Your task to perform on an android device: Check the news Image 0: 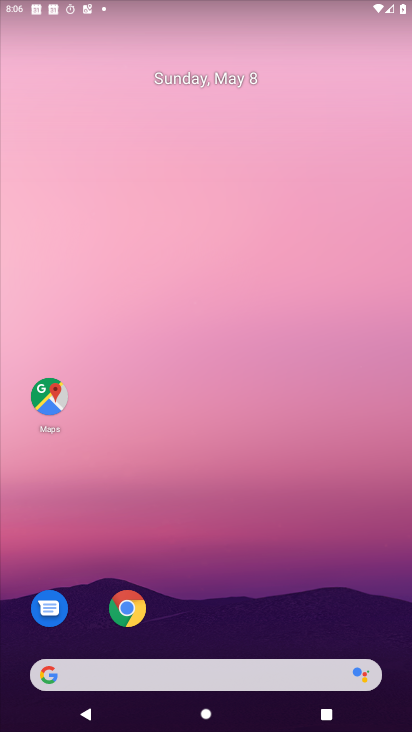
Step 0: click (138, 613)
Your task to perform on an android device: Check the news Image 1: 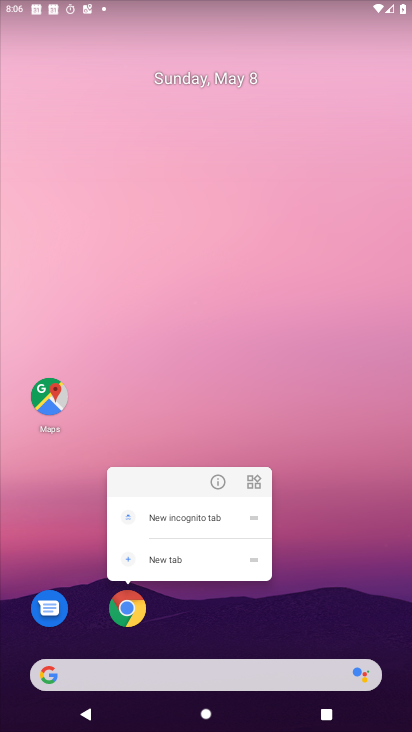
Step 1: task complete